Your task to perform on an android device: open sync settings in chrome Image 0: 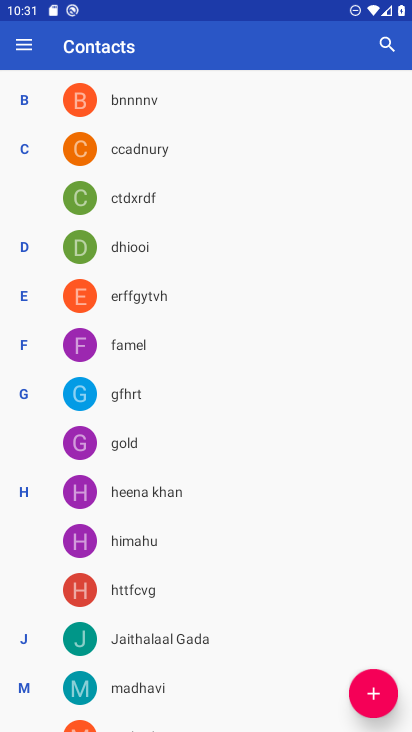
Step 0: press home button
Your task to perform on an android device: open sync settings in chrome Image 1: 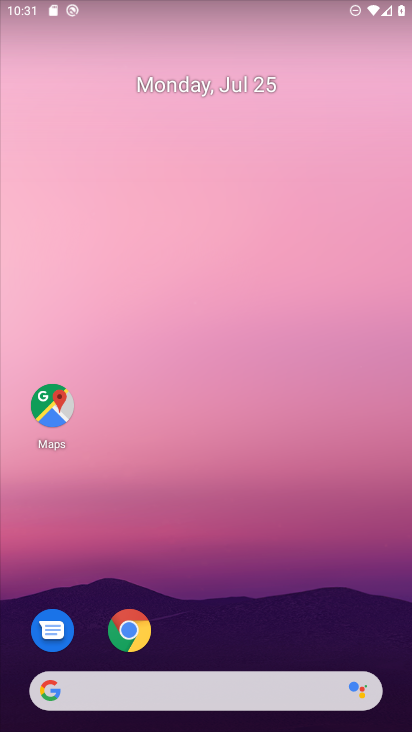
Step 1: drag from (314, 595) to (268, 58)
Your task to perform on an android device: open sync settings in chrome Image 2: 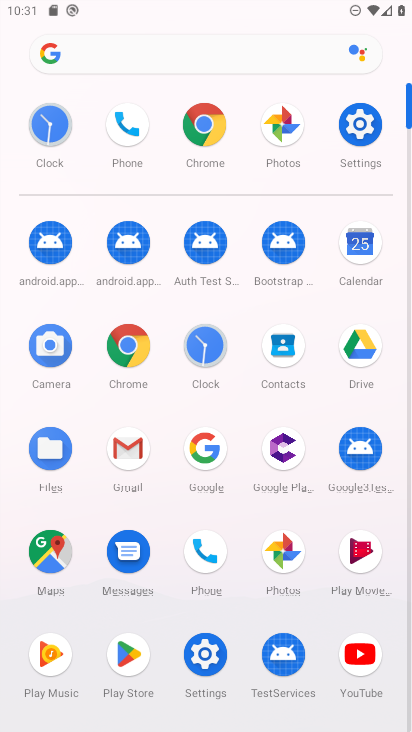
Step 2: click (131, 340)
Your task to perform on an android device: open sync settings in chrome Image 3: 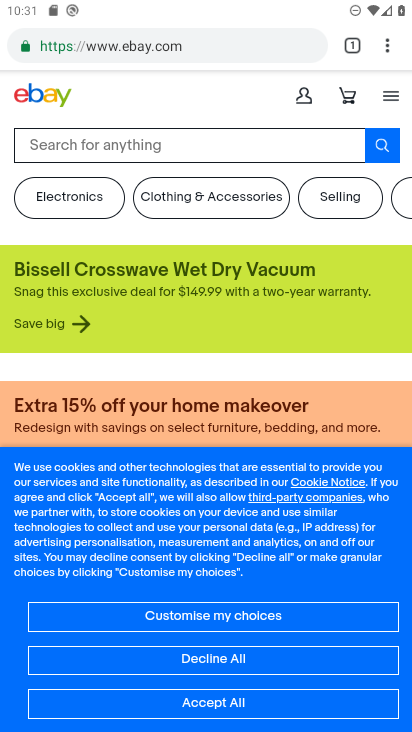
Step 3: click (392, 45)
Your task to perform on an android device: open sync settings in chrome Image 4: 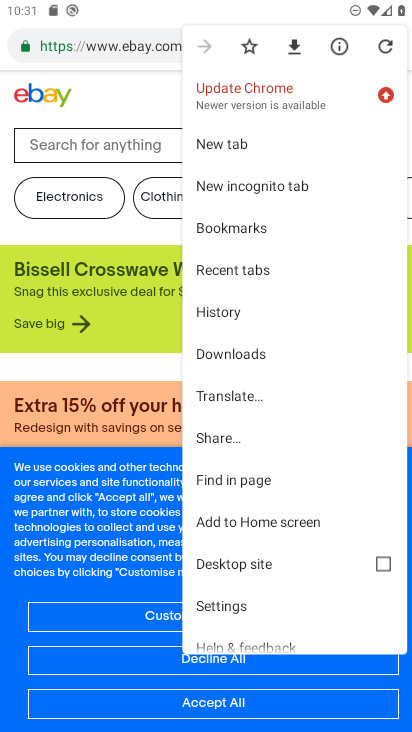
Step 4: click (233, 606)
Your task to perform on an android device: open sync settings in chrome Image 5: 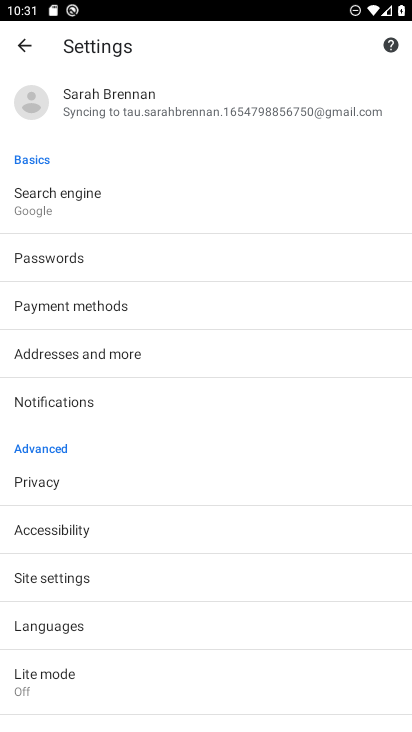
Step 5: click (161, 116)
Your task to perform on an android device: open sync settings in chrome Image 6: 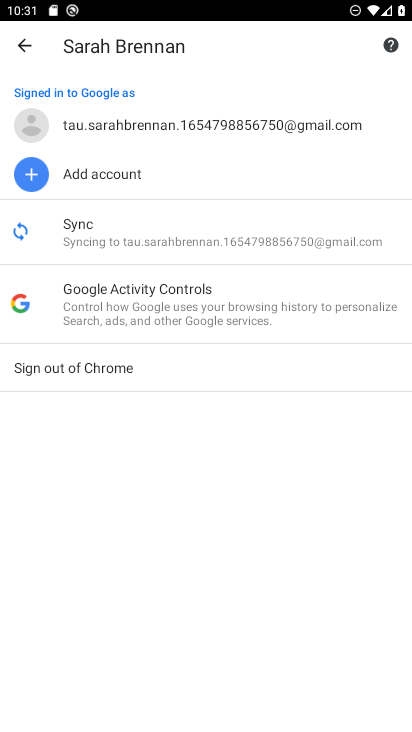
Step 6: click (150, 254)
Your task to perform on an android device: open sync settings in chrome Image 7: 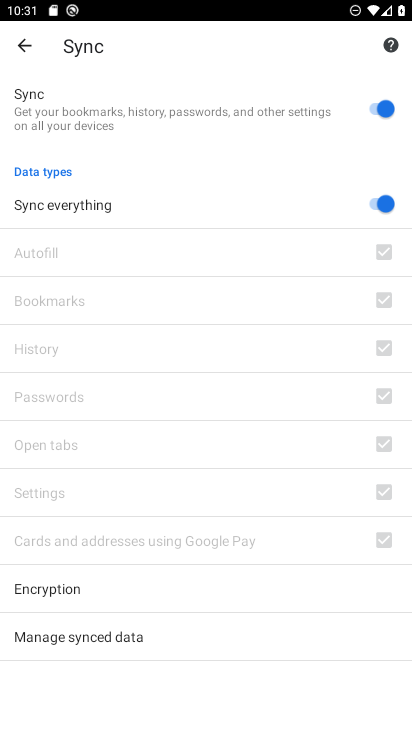
Step 7: task complete